Your task to perform on an android device: Open the phone app and click the voicemail tab. Image 0: 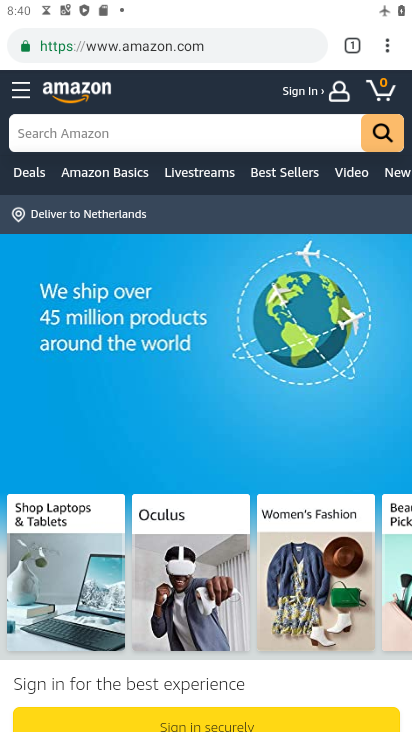
Step 0: press home button
Your task to perform on an android device: Open the phone app and click the voicemail tab. Image 1: 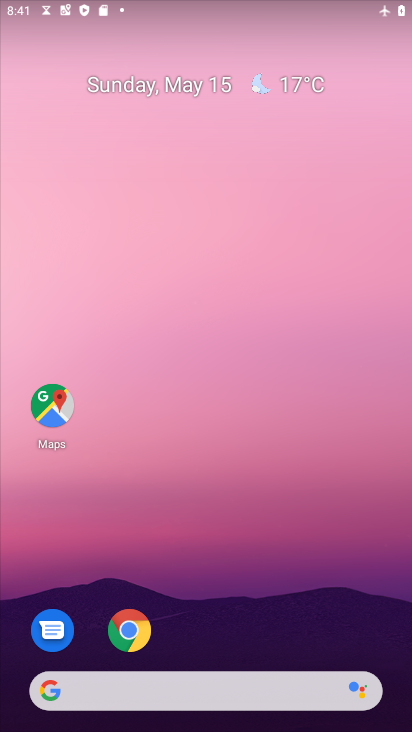
Step 1: drag from (302, 582) to (359, 2)
Your task to perform on an android device: Open the phone app and click the voicemail tab. Image 2: 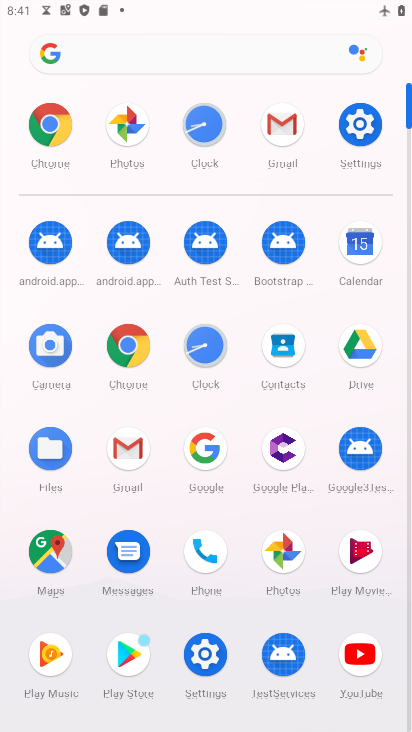
Step 2: click (197, 549)
Your task to perform on an android device: Open the phone app and click the voicemail tab. Image 3: 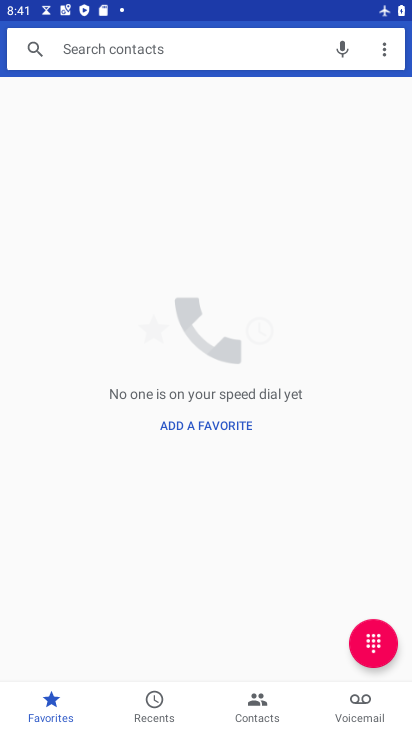
Step 3: click (336, 708)
Your task to perform on an android device: Open the phone app and click the voicemail tab. Image 4: 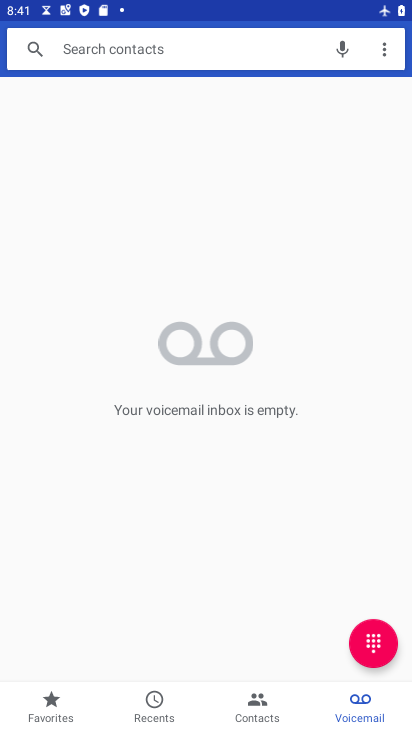
Step 4: task complete